Your task to perform on an android device: toggle translation in the chrome app Image 0: 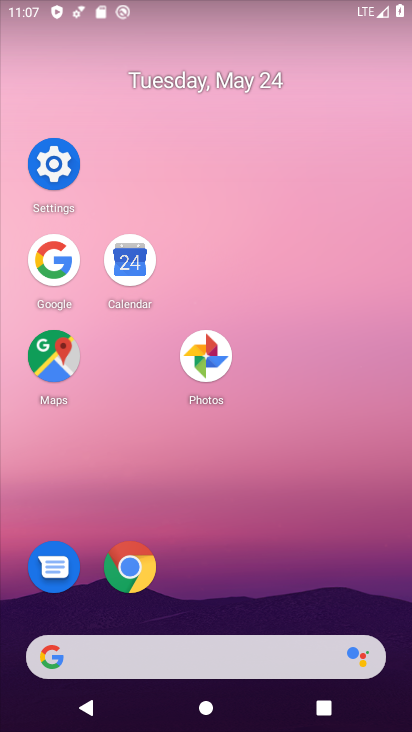
Step 0: click (122, 578)
Your task to perform on an android device: toggle translation in the chrome app Image 1: 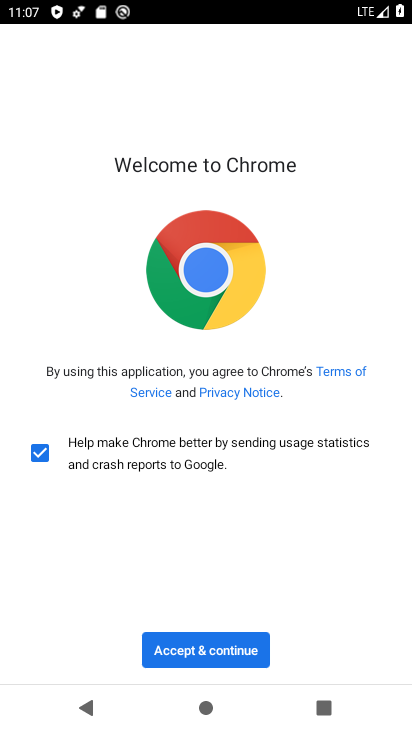
Step 1: click (225, 652)
Your task to perform on an android device: toggle translation in the chrome app Image 2: 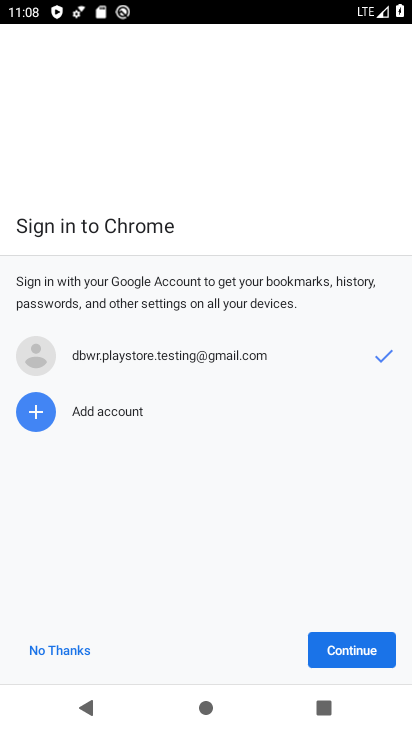
Step 2: click (368, 635)
Your task to perform on an android device: toggle translation in the chrome app Image 3: 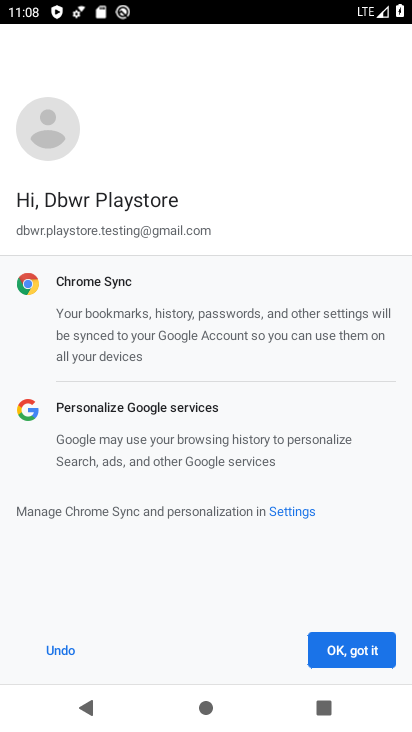
Step 3: click (365, 667)
Your task to perform on an android device: toggle translation in the chrome app Image 4: 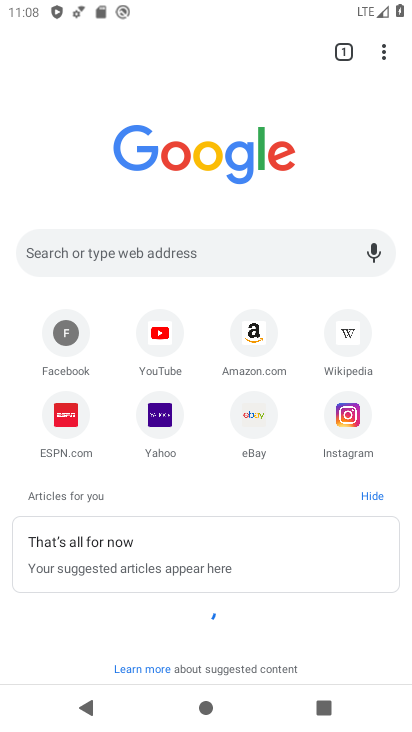
Step 4: click (391, 59)
Your task to perform on an android device: toggle translation in the chrome app Image 5: 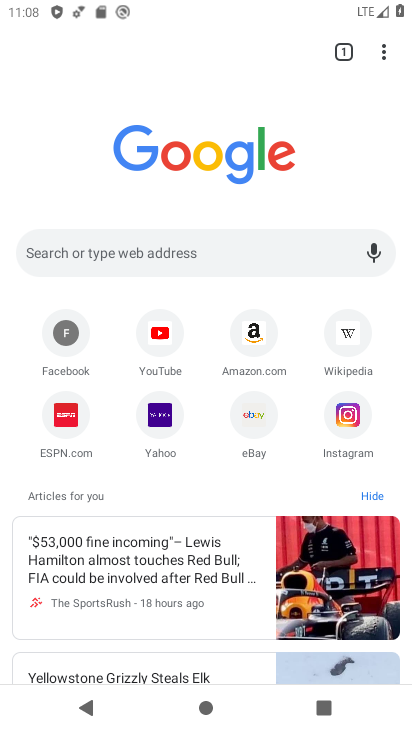
Step 5: click (378, 55)
Your task to perform on an android device: toggle translation in the chrome app Image 6: 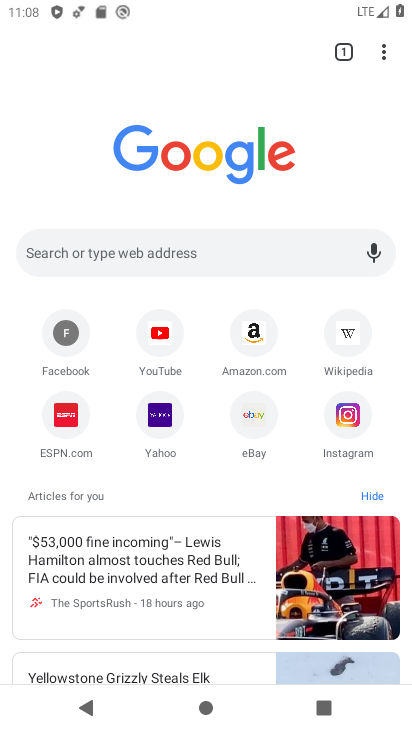
Step 6: click (385, 61)
Your task to perform on an android device: toggle translation in the chrome app Image 7: 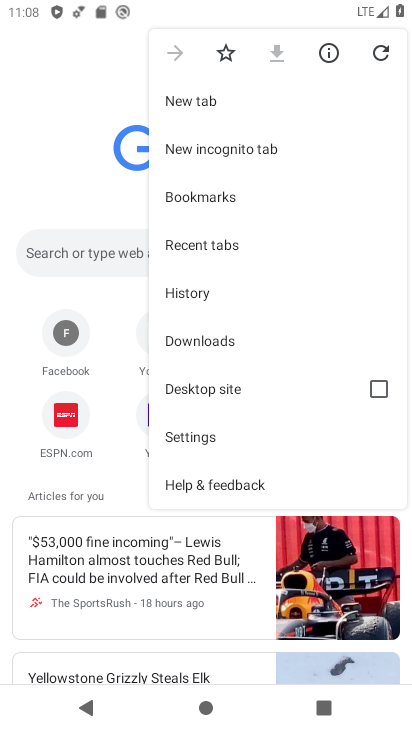
Step 7: drag from (217, 398) to (280, 120)
Your task to perform on an android device: toggle translation in the chrome app Image 8: 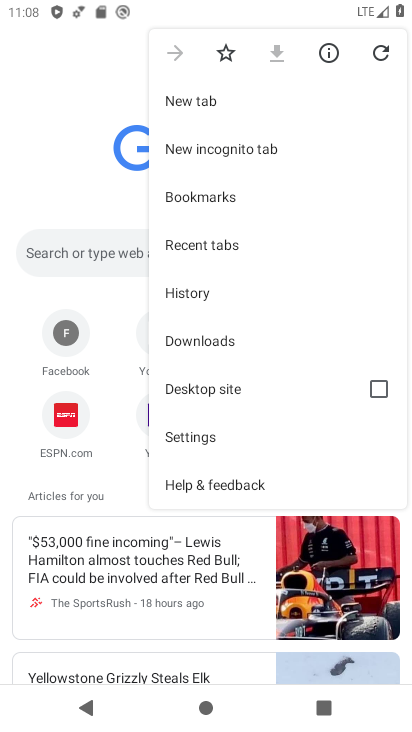
Step 8: click (196, 438)
Your task to perform on an android device: toggle translation in the chrome app Image 9: 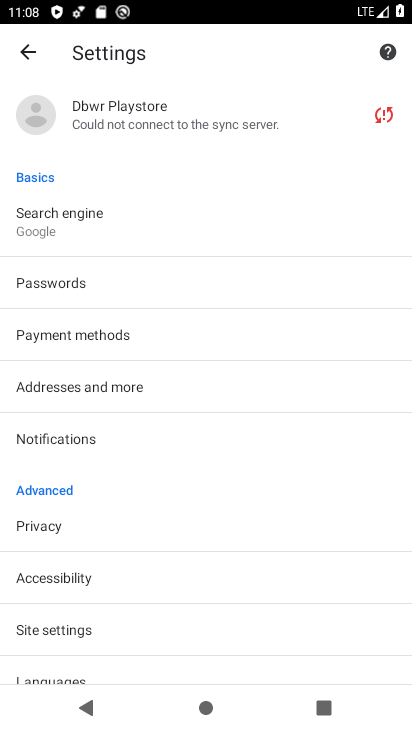
Step 9: click (82, 672)
Your task to perform on an android device: toggle translation in the chrome app Image 10: 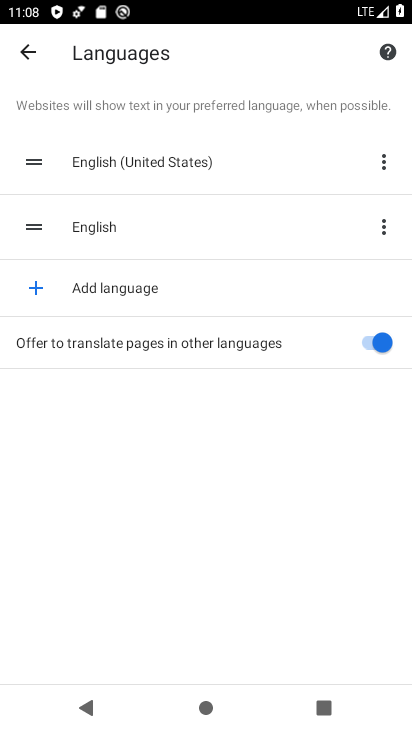
Step 10: click (370, 344)
Your task to perform on an android device: toggle translation in the chrome app Image 11: 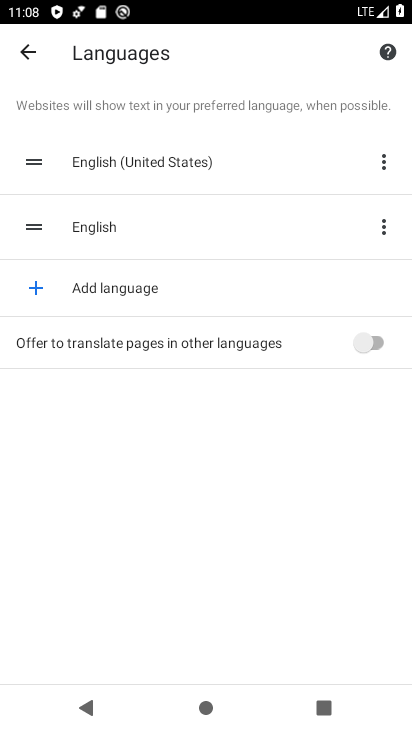
Step 11: task complete